Your task to perform on an android device: Do I have any events today? Image 0: 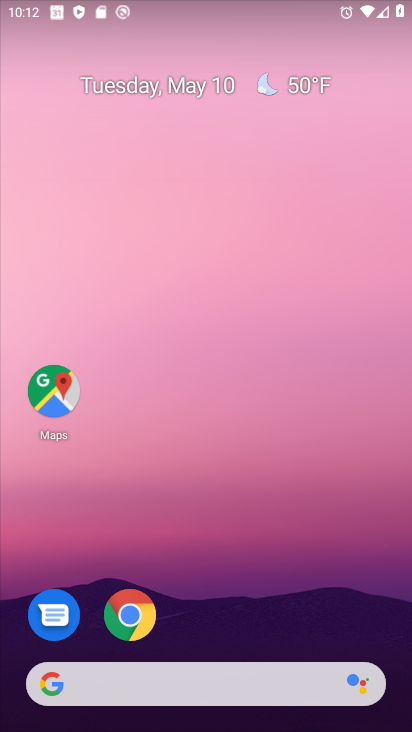
Step 0: press home button
Your task to perform on an android device: Do I have any events today? Image 1: 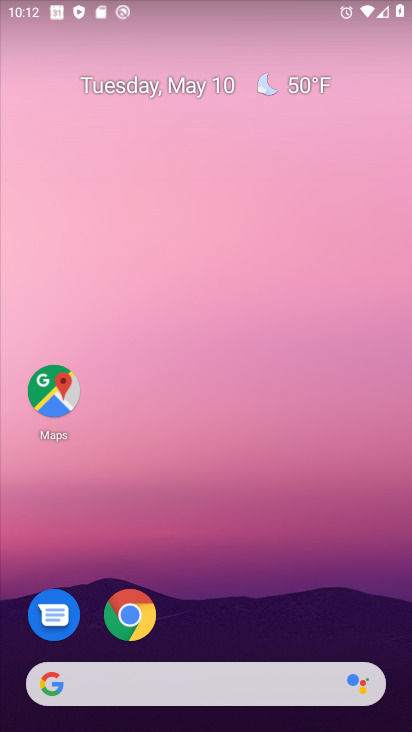
Step 1: drag from (218, 638) to (237, 89)
Your task to perform on an android device: Do I have any events today? Image 2: 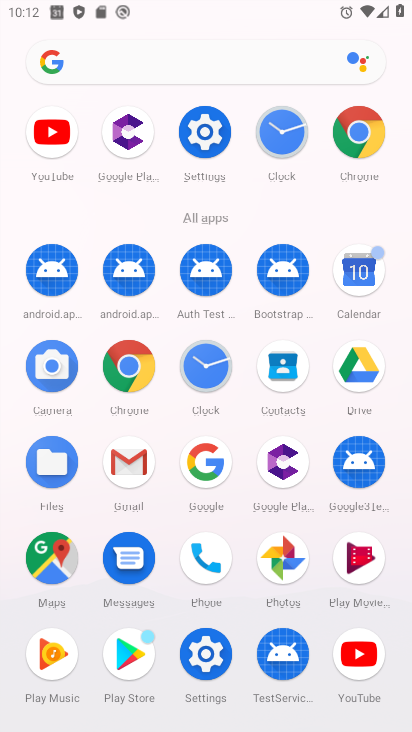
Step 2: click (355, 255)
Your task to perform on an android device: Do I have any events today? Image 3: 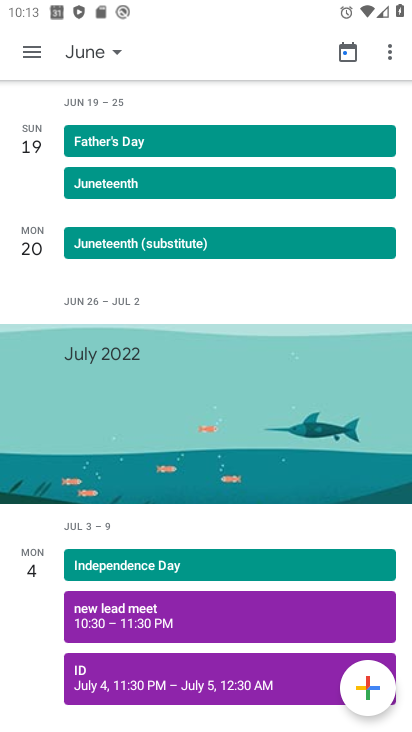
Step 3: click (29, 49)
Your task to perform on an android device: Do I have any events today? Image 4: 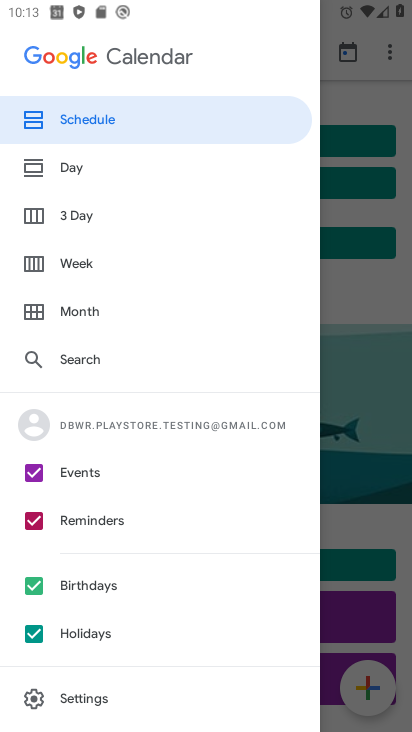
Step 4: click (53, 171)
Your task to perform on an android device: Do I have any events today? Image 5: 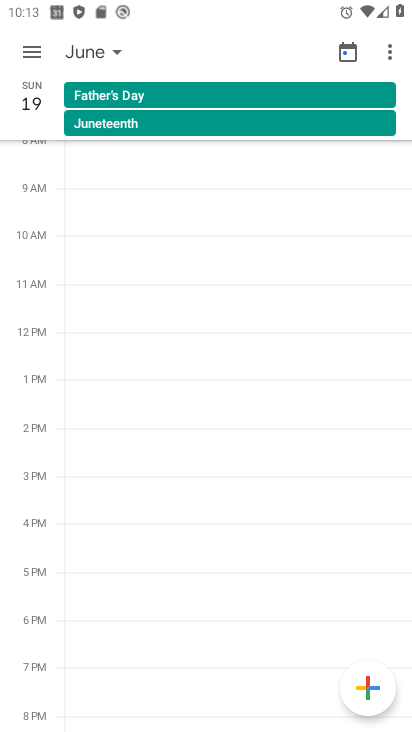
Step 5: click (111, 52)
Your task to perform on an android device: Do I have any events today? Image 6: 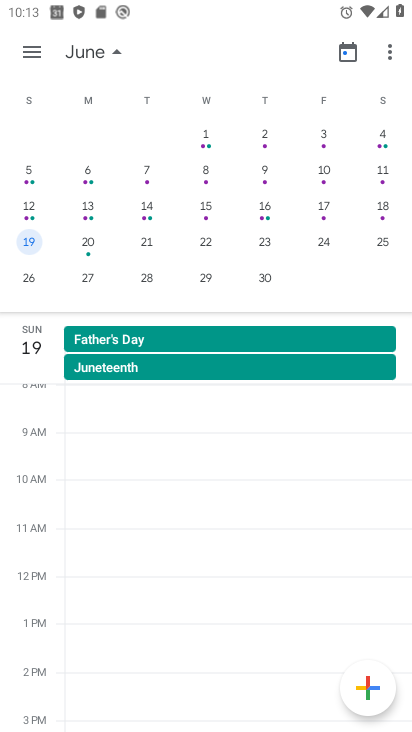
Step 6: drag from (72, 217) to (350, 222)
Your task to perform on an android device: Do I have any events today? Image 7: 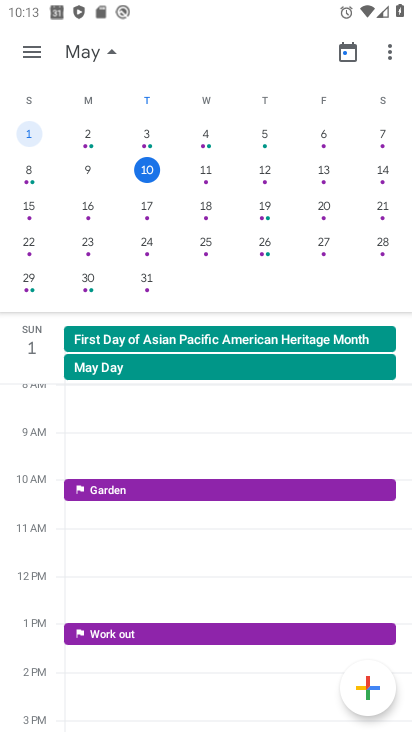
Step 7: click (143, 178)
Your task to perform on an android device: Do I have any events today? Image 8: 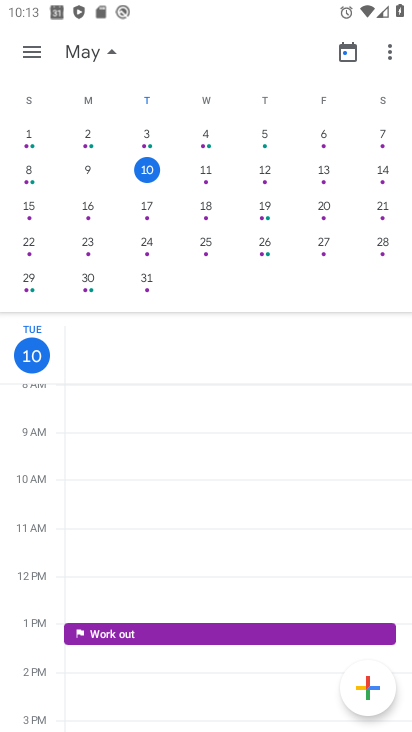
Step 8: click (37, 52)
Your task to perform on an android device: Do I have any events today? Image 9: 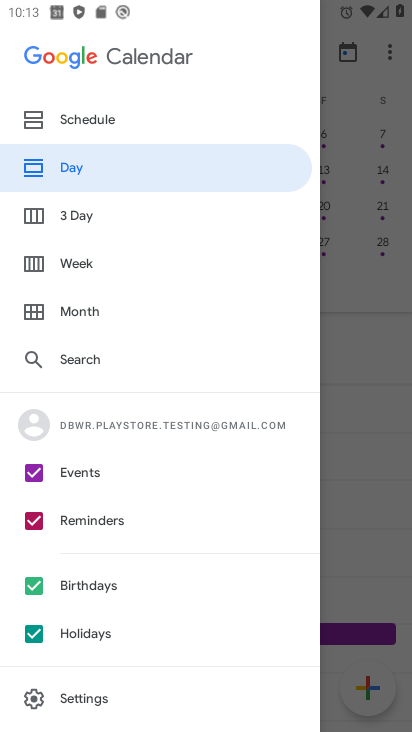
Step 9: click (34, 520)
Your task to perform on an android device: Do I have any events today? Image 10: 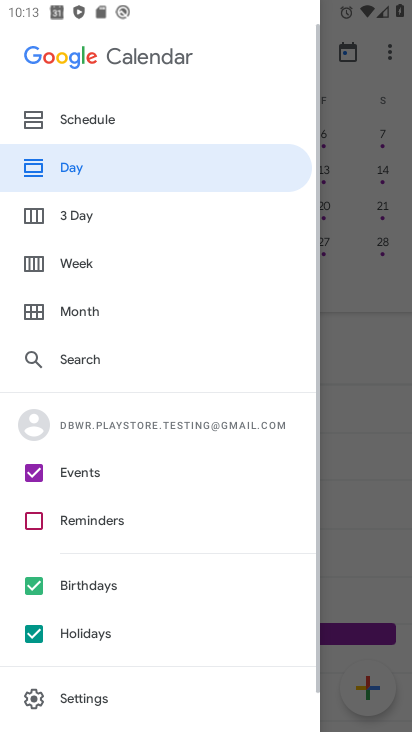
Step 10: click (35, 583)
Your task to perform on an android device: Do I have any events today? Image 11: 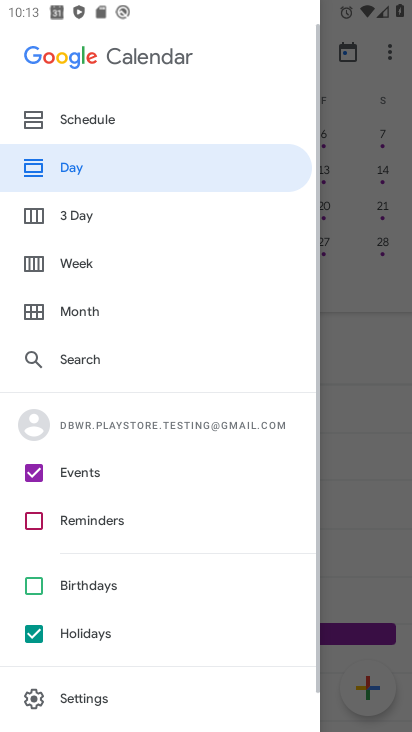
Step 11: click (42, 629)
Your task to perform on an android device: Do I have any events today? Image 12: 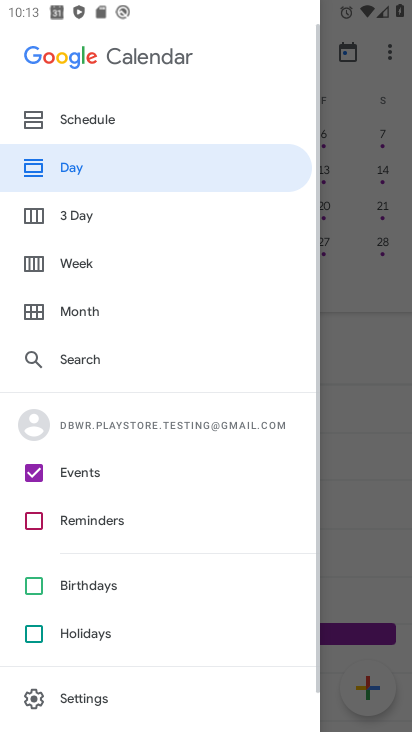
Step 12: click (50, 123)
Your task to perform on an android device: Do I have any events today? Image 13: 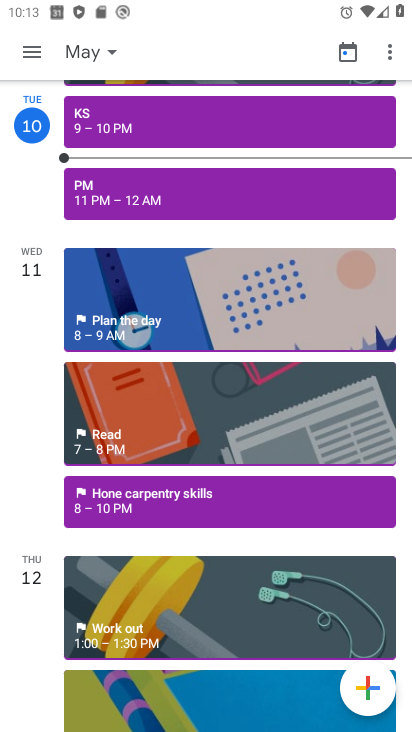
Step 13: click (43, 154)
Your task to perform on an android device: Do I have any events today? Image 14: 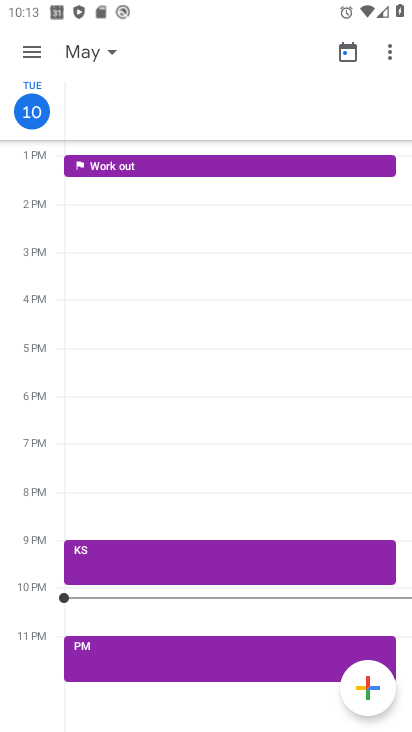
Step 14: task complete